Your task to perform on an android device: open chrome privacy settings Image 0: 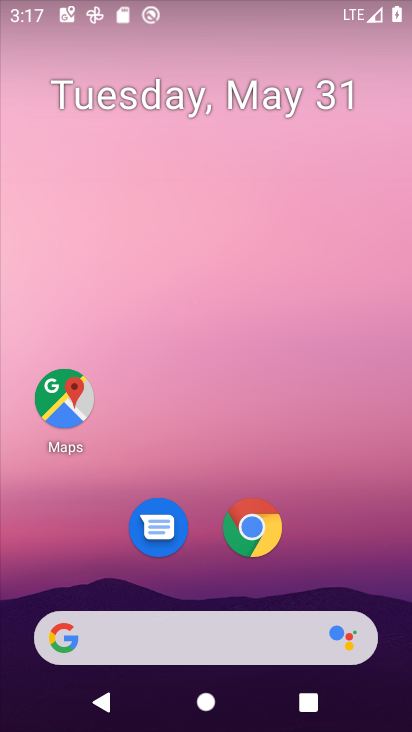
Step 0: drag from (362, 349) to (359, 132)
Your task to perform on an android device: open chrome privacy settings Image 1: 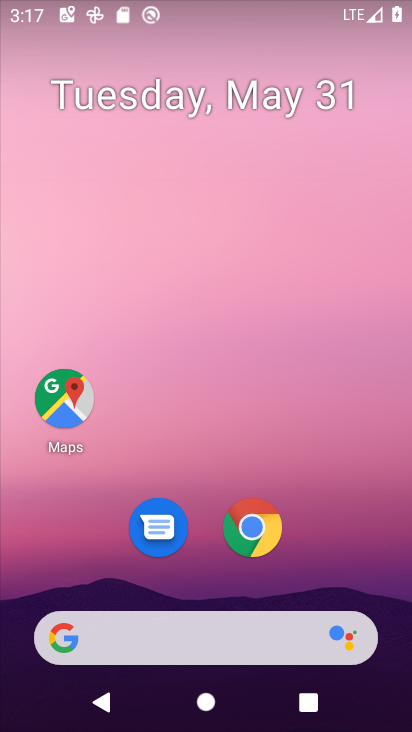
Step 1: drag from (361, 543) to (390, 48)
Your task to perform on an android device: open chrome privacy settings Image 2: 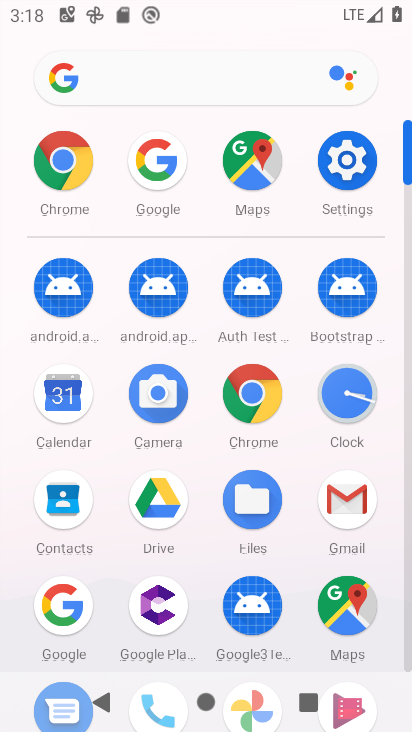
Step 2: click (328, 181)
Your task to perform on an android device: open chrome privacy settings Image 3: 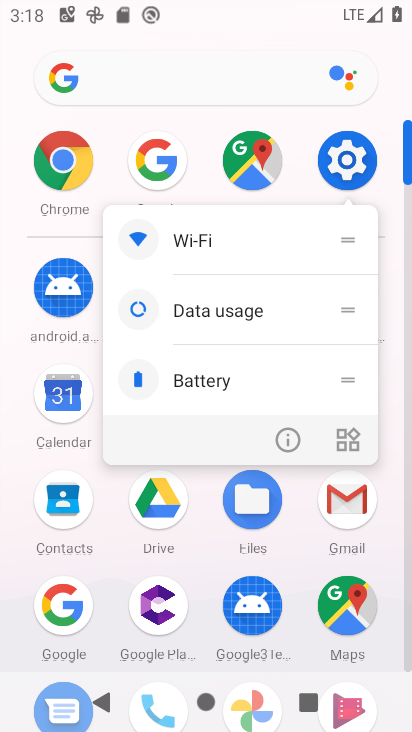
Step 3: click (328, 170)
Your task to perform on an android device: open chrome privacy settings Image 4: 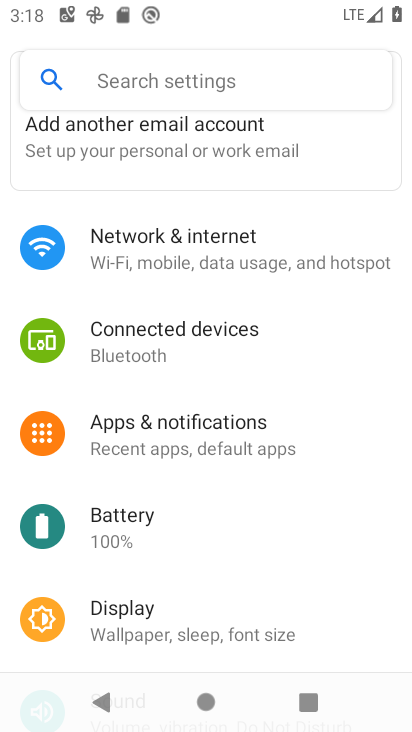
Step 4: drag from (253, 633) to (266, 219)
Your task to perform on an android device: open chrome privacy settings Image 5: 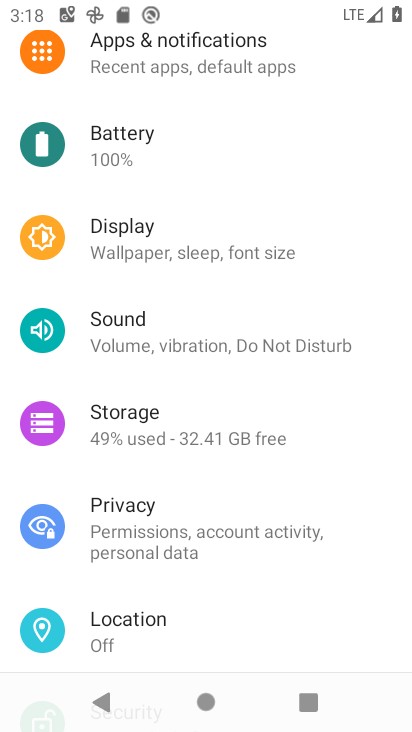
Step 5: click (186, 525)
Your task to perform on an android device: open chrome privacy settings Image 6: 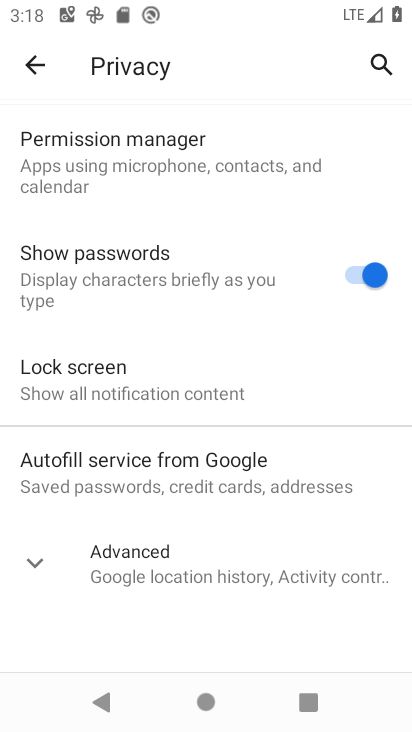
Step 6: task complete